Your task to perform on an android device: turn off smart reply in the gmail app Image 0: 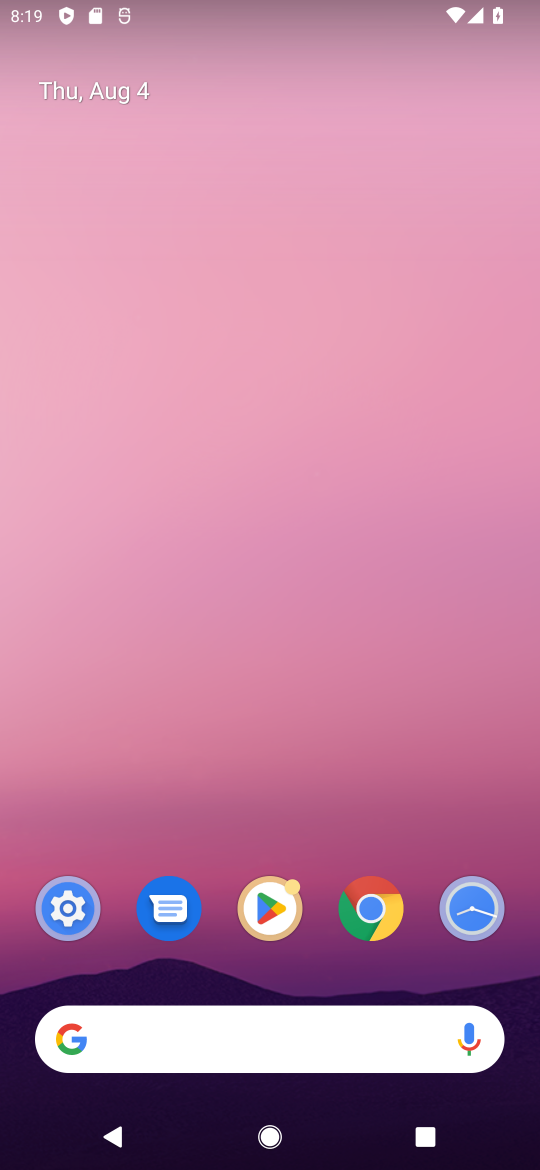
Step 0: drag from (285, 934) to (309, 482)
Your task to perform on an android device: turn off smart reply in the gmail app Image 1: 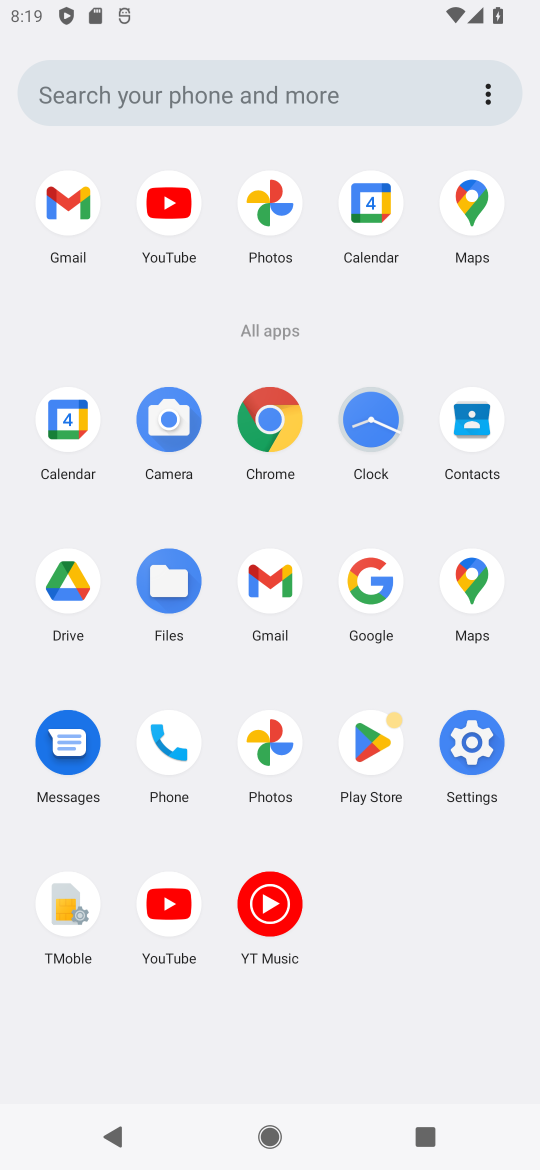
Step 1: click (283, 576)
Your task to perform on an android device: turn off smart reply in the gmail app Image 2: 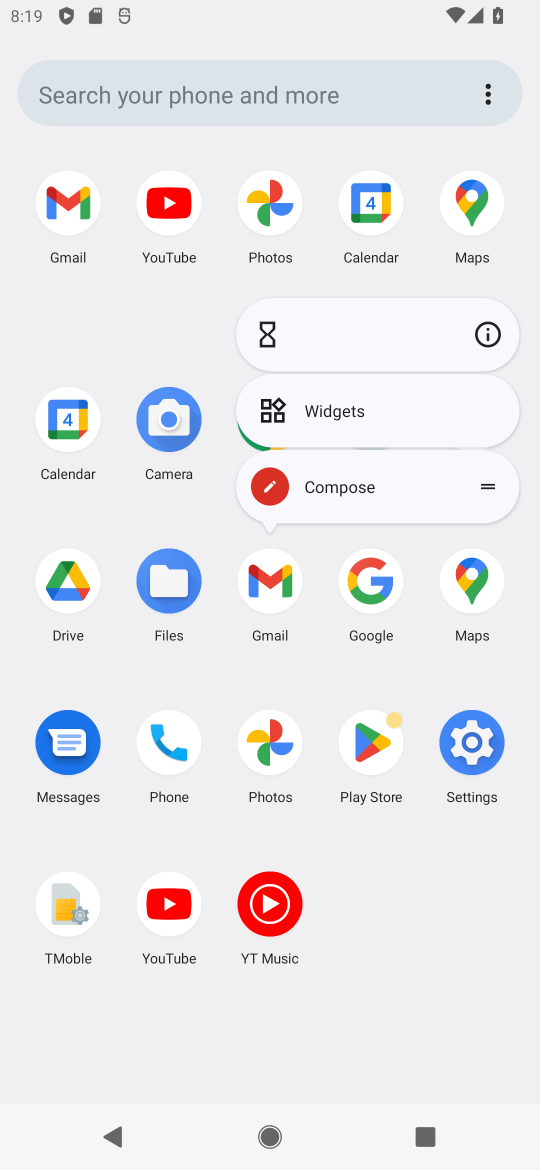
Step 2: click (278, 607)
Your task to perform on an android device: turn off smart reply in the gmail app Image 3: 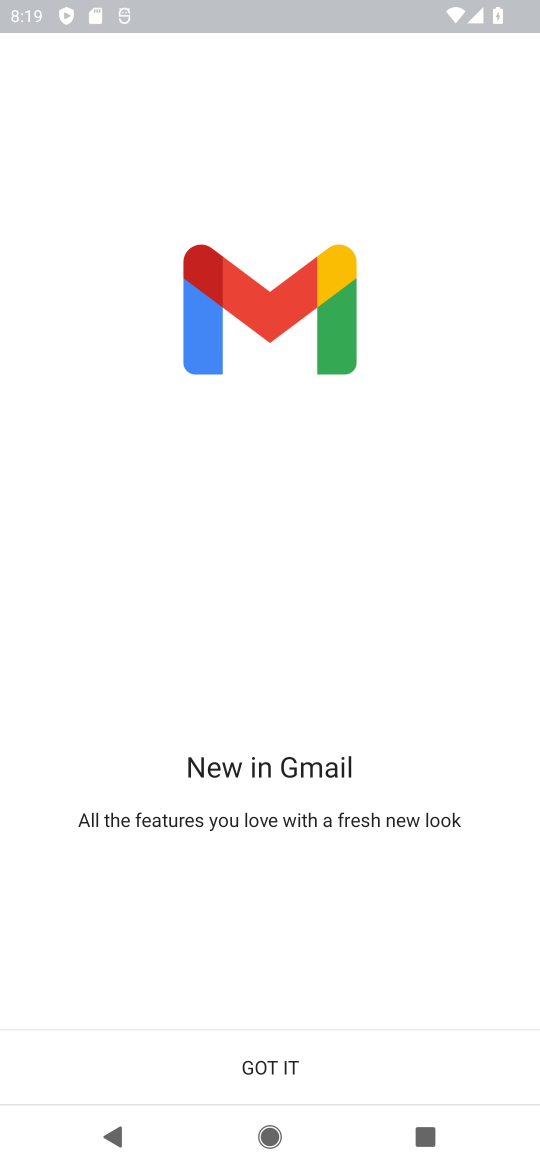
Step 3: click (317, 1051)
Your task to perform on an android device: turn off smart reply in the gmail app Image 4: 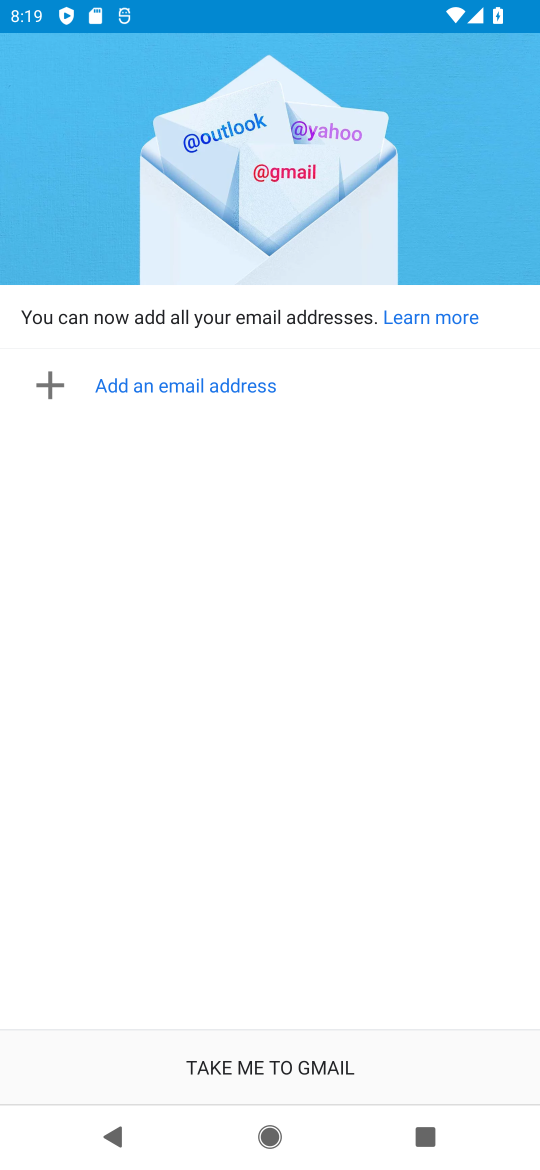
Step 4: click (317, 1051)
Your task to perform on an android device: turn off smart reply in the gmail app Image 5: 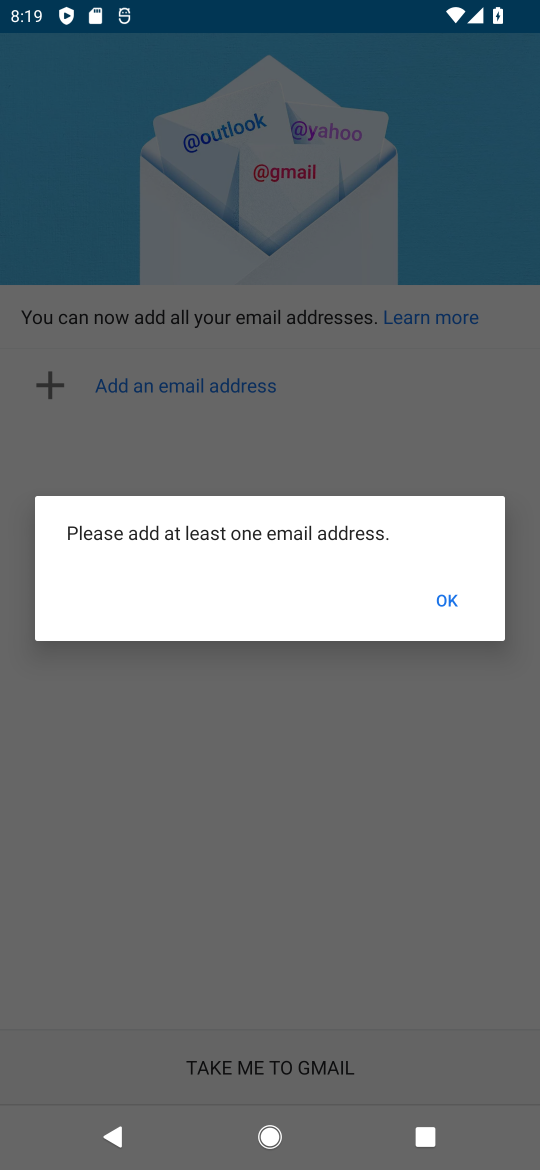
Step 5: click (438, 617)
Your task to perform on an android device: turn off smart reply in the gmail app Image 6: 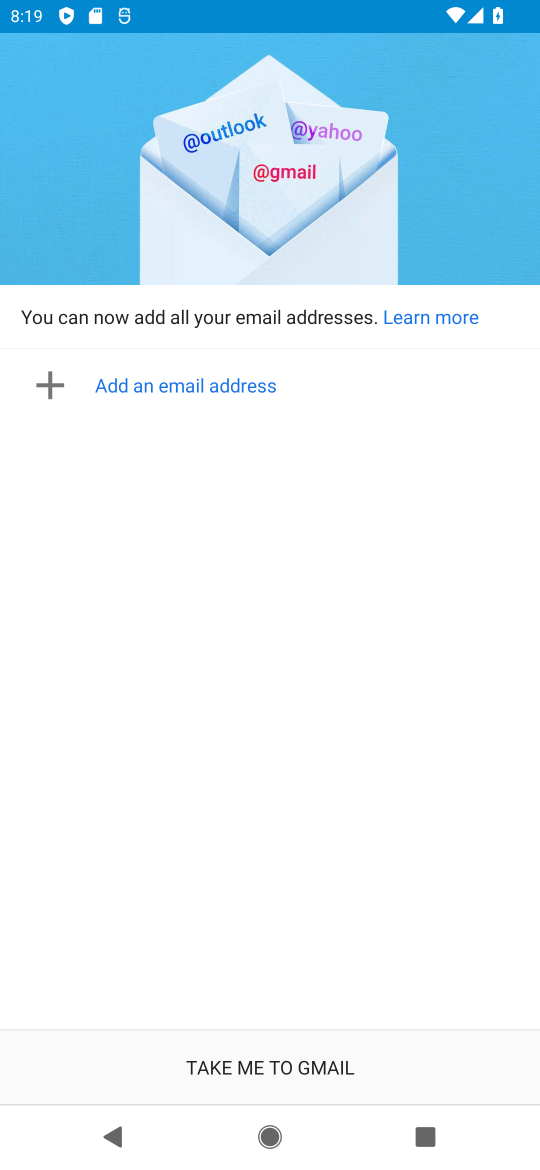
Step 6: task complete